Your task to perform on an android device: Search for pizza restaurants on Maps Image 0: 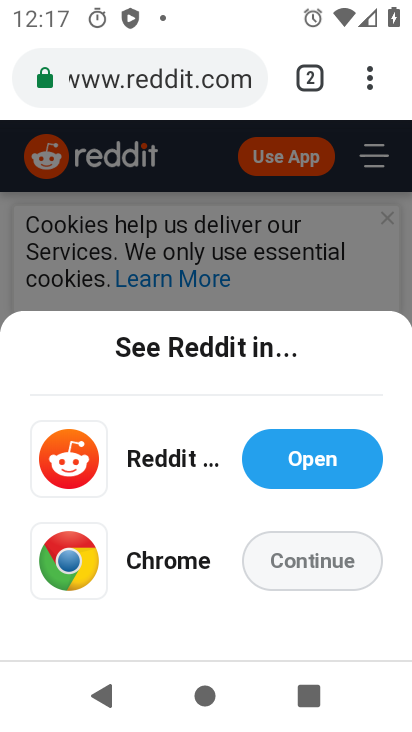
Step 0: press back button
Your task to perform on an android device: Search for pizza restaurants on Maps Image 1: 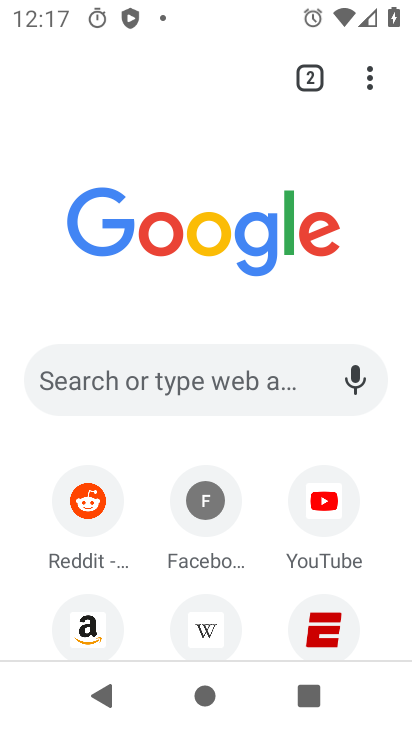
Step 1: press back button
Your task to perform on an android device: Search for pizza restaurants on Maps Image 2: 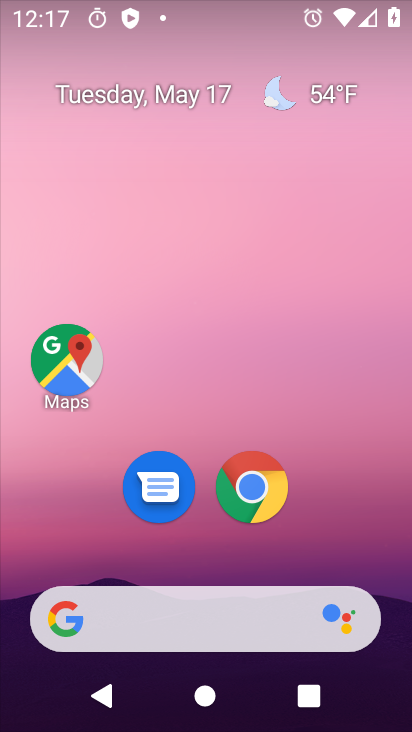
Step 2: click (56, 364)
Your task to perform on an android device: Search for pizza restaurants on Maps Image 3: 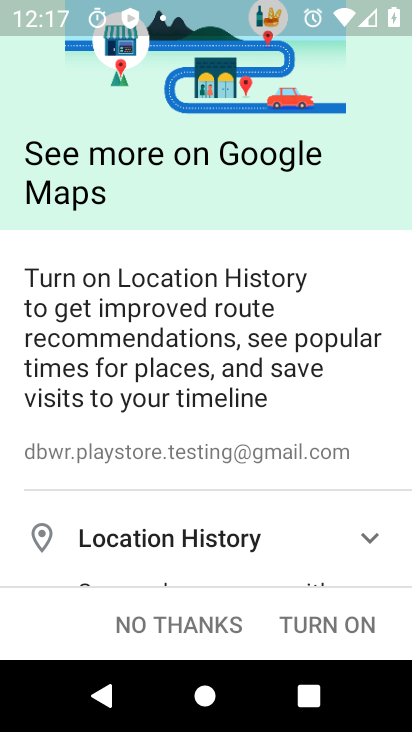
Step 3: click (188, 632)
Your task to perform on an android device: Search for pizza restaurants on Maps Image 4: 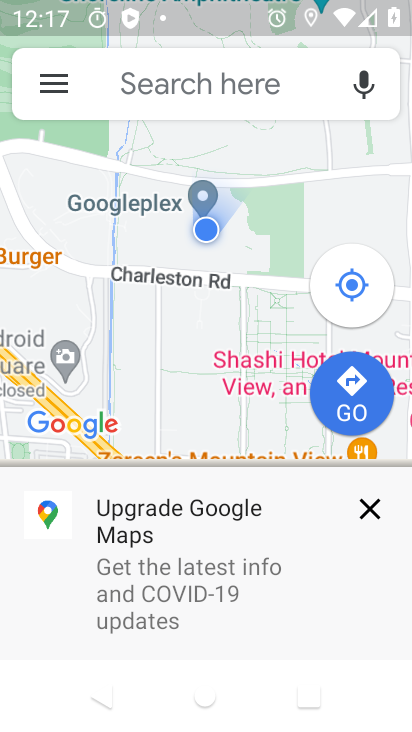
Step 4: click (106, 115)
Your task to perform on an android device: Search for pizza restaurants on Maps Image 5: 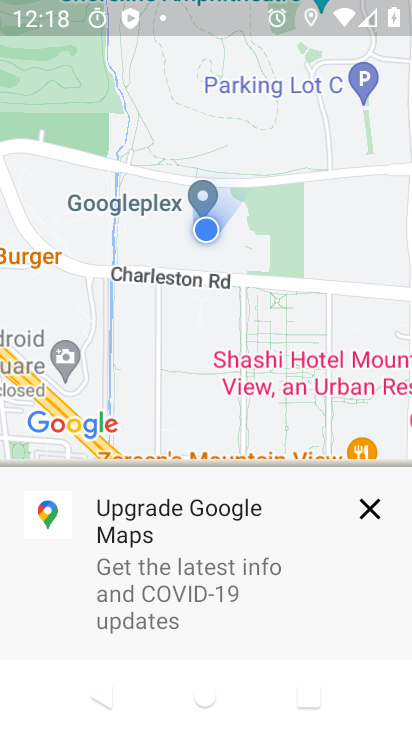
Step 5: drag from (211, 124) to (197, 437)
Your task to perform on an android device: Search for pizza restaurants on Maps Image 6: 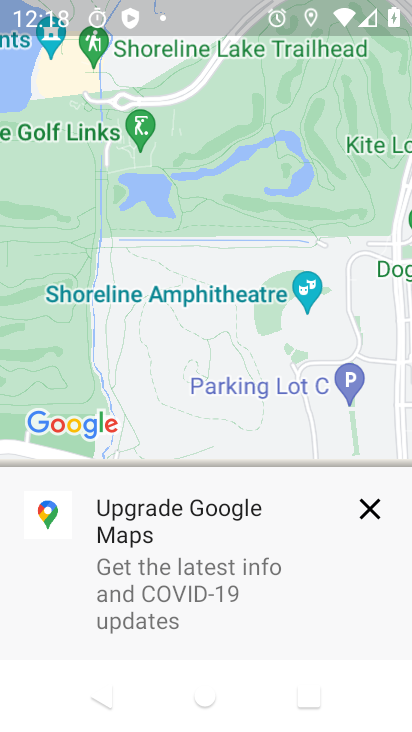
Step 6: click (362, 513)
Your task to perform on an android device: Search for pizza restaurants on Maps Image 7: 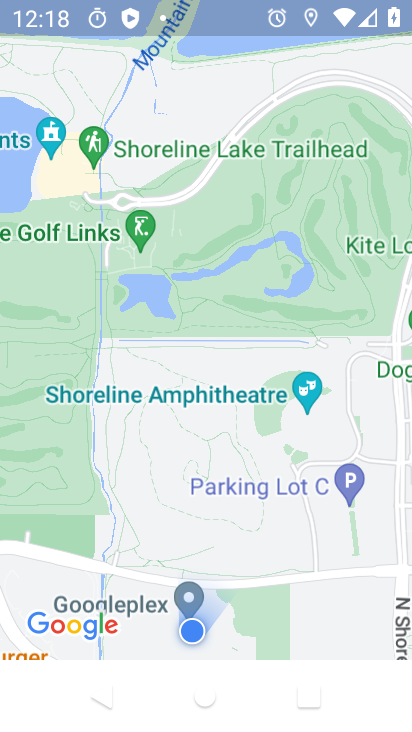
Step 7: drag from (143, 526) to (279, 149)
Your task to perform on an android device: Search for pizza restaurants on Maps Image 8: 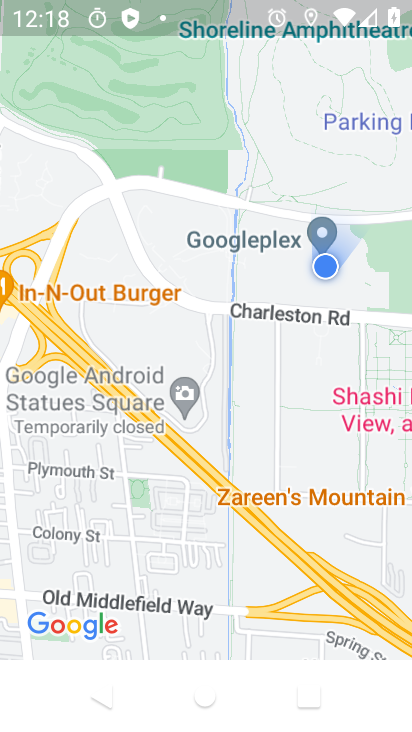
Step 8: click (123, 303)
Your task to perform on an android device: Search for pizza restaurants on Maps Image 9: 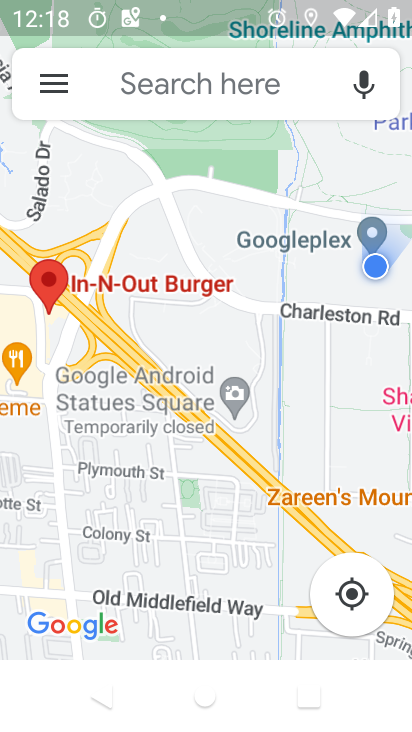
Step 9: click (159, 86)
Your task to perform on an android device: Search for pizza restaurants on Maps Image 10: 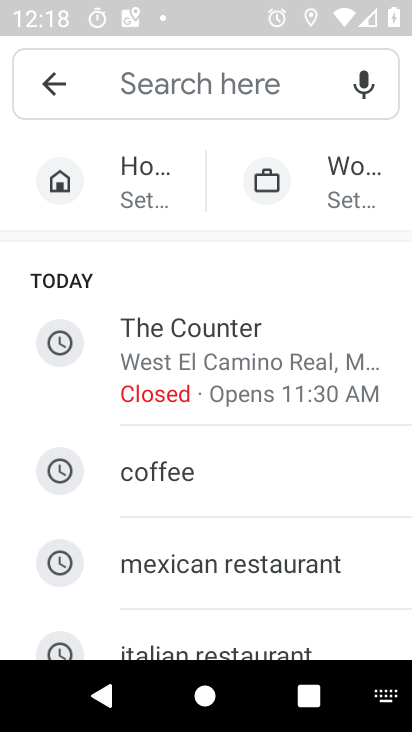
Step 10: drag from (156, 610) to (287, 98)
Your task to perform on an android device: Search for pizza restaurants on Maps Image 11: 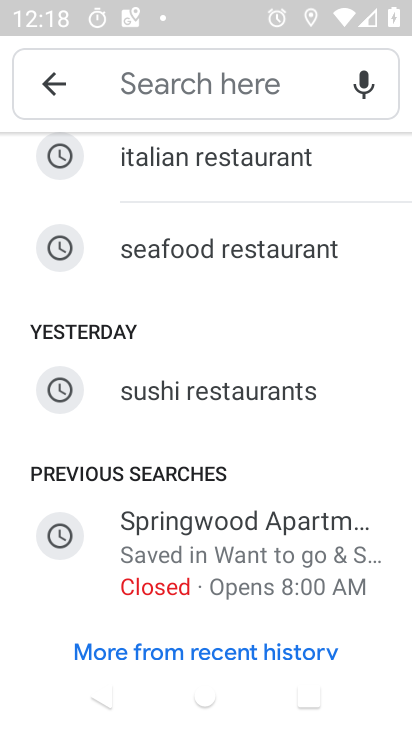
Step 11: drag from (320, 264) to (225, 707)
Your task to perform on an android device: Search for pizza restaurants on Maps Image 12: 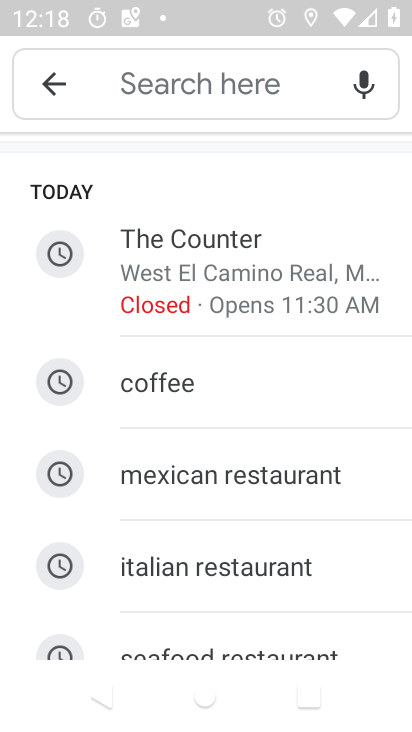
Step 12: click (133, 72)
Your task to perform on an android device: Search for pizza restaurants on Maps Image 13: 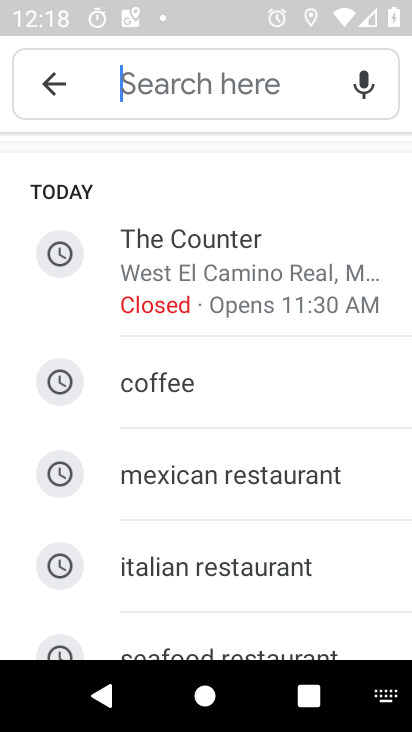
Step 13: type "pizza restaurants"
Your task to perform on an android device: Search for pizza restaurants on Maps Image 14: 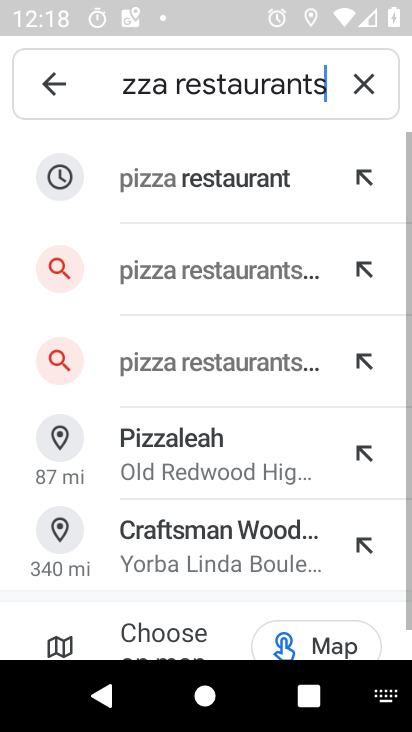
Step 14: click (197, 165)
Your task to perform on an android device: Search for pizza restaurants on Maps Image 15: 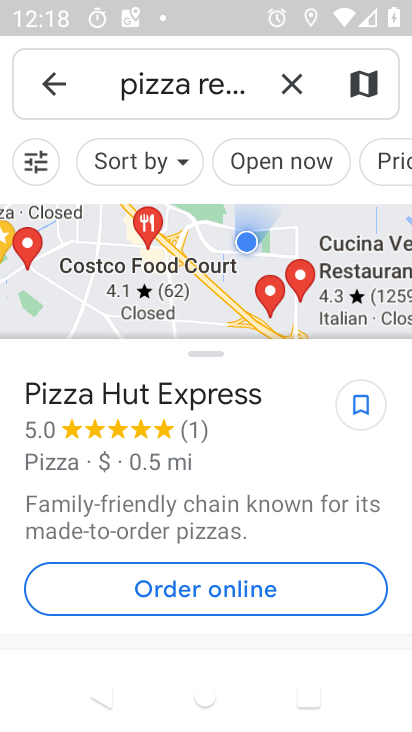
Step 15: task complete